Your task to perform on an android device: turn off javascript in the chrome app Image 0: 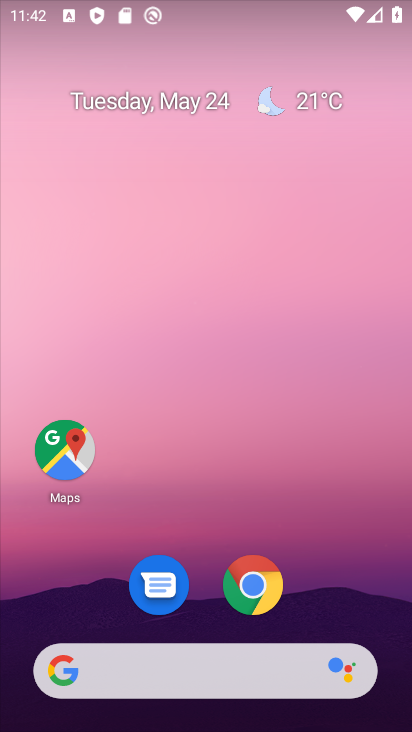
Step 0: click (259, 582)
Your task to perform on an android device: turn off javascript in the chrome app Image 1: 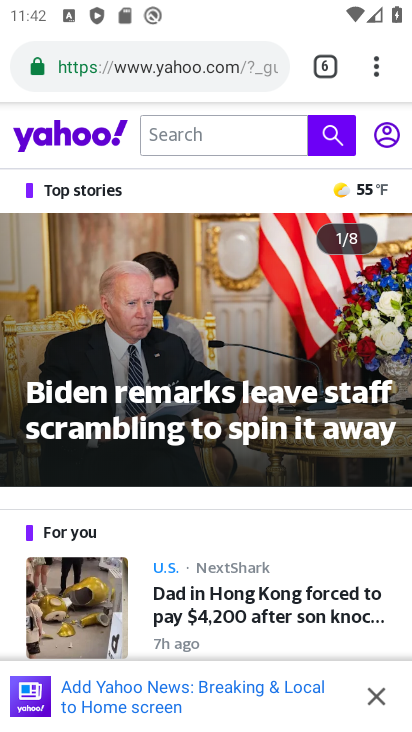
Step 1: click (375, 68)
Your task to perform on an android device: turn off javascript in the chrome app Image 2: 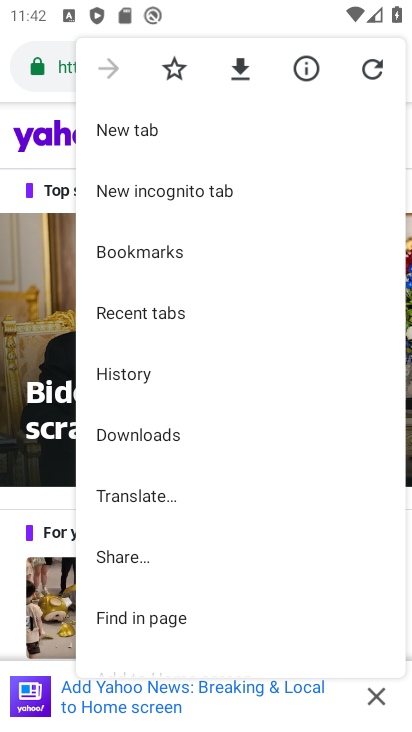
Step 2: drag from (252, 492) to (260, 145)
Your task to perform on an android device: turn off javascript in the chrome app Image 3: 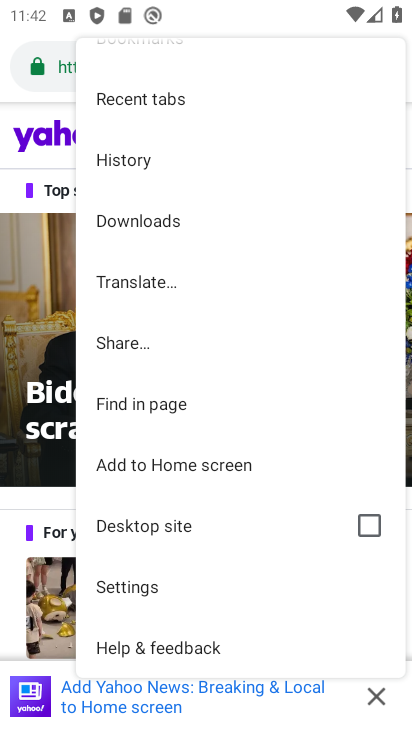
Step 3: click (170, 579)
Your task to perform on an android device: turn off javascript in the chrome app Image 4: 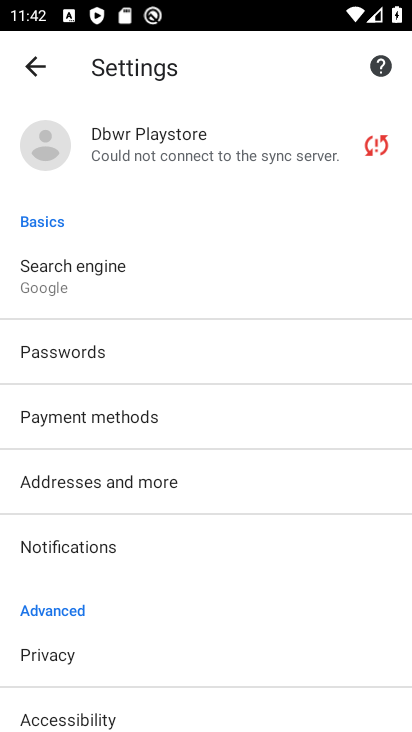
Step 4: drag from (179, 592) to (220, 229)
Your task to perform on an android device: turn off javascript in the chrome app Image 5: 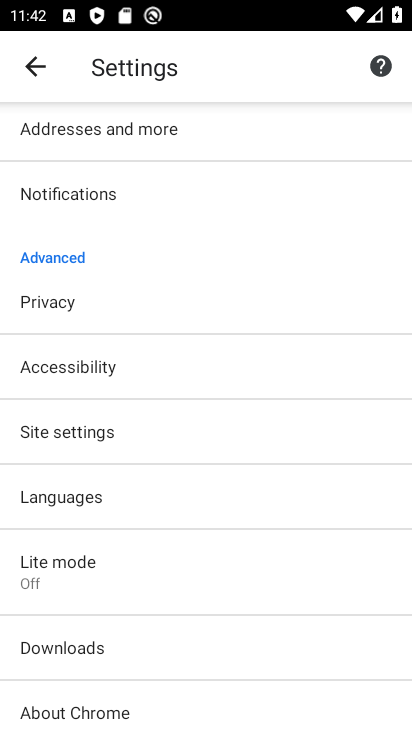
Step 5: click (184, 424)
Your task to perform on an android device: turn off javascript in the chrome app Image 6: 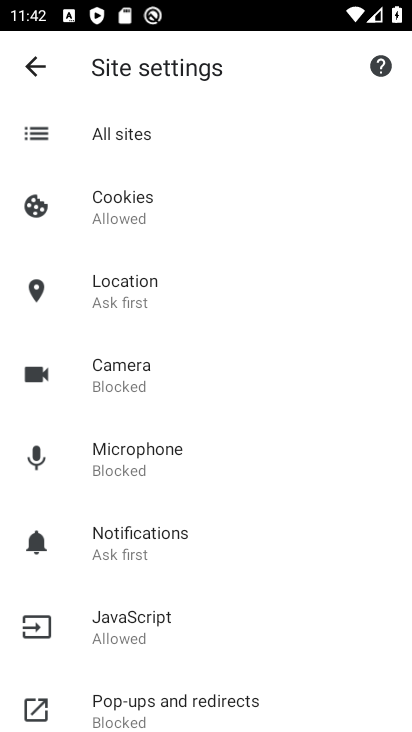
Step 6: click (193, 617)
Your task to perform on an android device: turn off javascript in the chrome app Image 7: 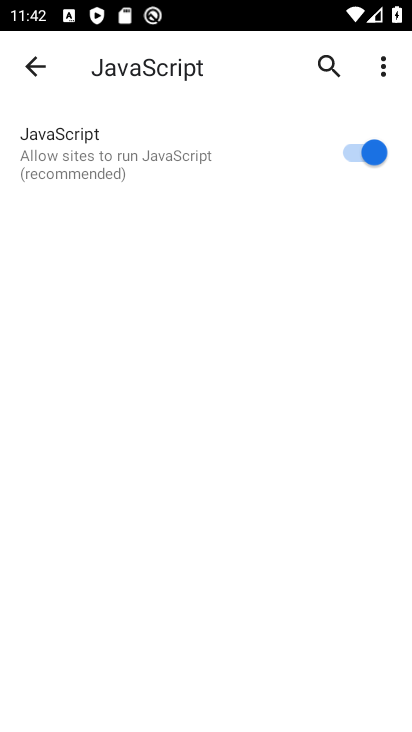
Step 7: click (358, 138)
Your task to perform on an android device: turn off javascript in the chrome app Image 8: 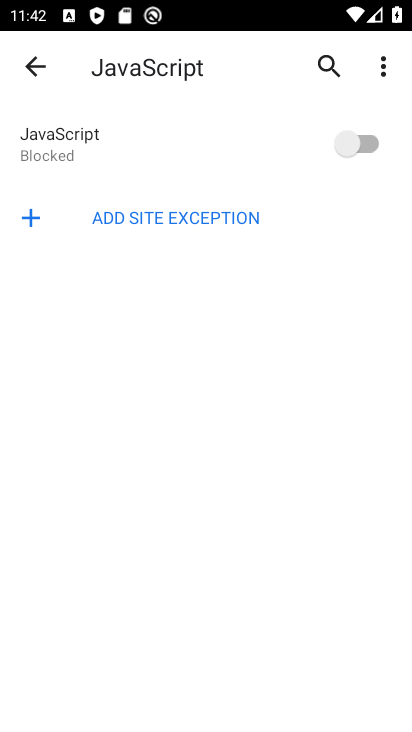
Step 8: task complete